Your task to perform on an android device: Go to Wikipedia Image 0: 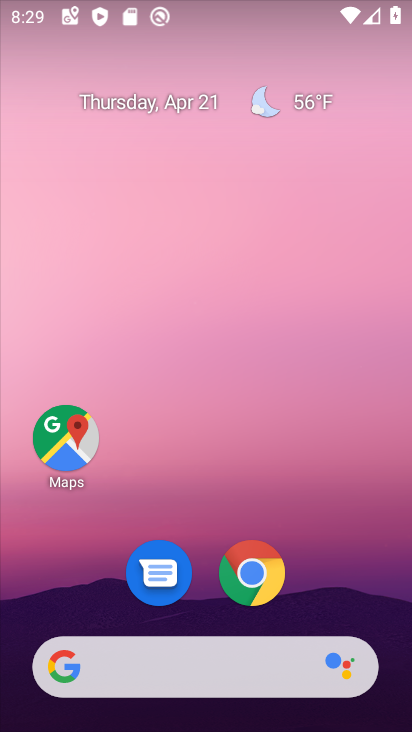
Step 0: click (261, 552)
Your task to perform on an android device: Go to Wikipedia Image 1: 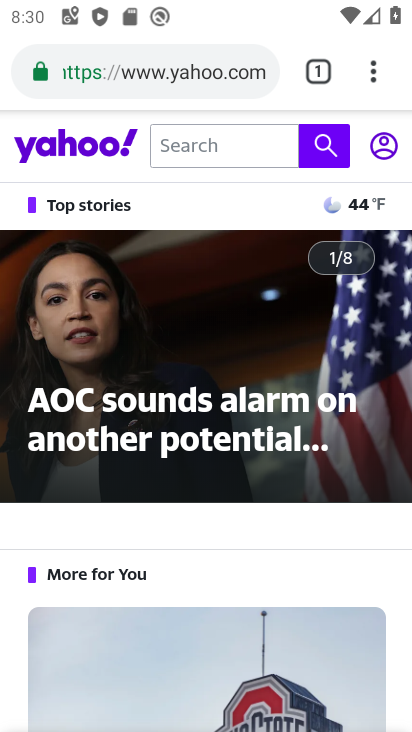
Step 1: click (327, 70)
Your task to perform on an android device: Go to Wikipedia Image 2: 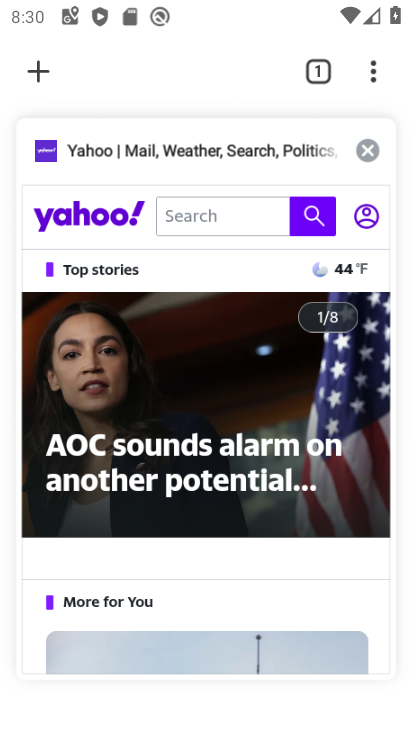
Step 2: click (367, 150)
Your task to perform on an android device: Go to Wikipedia Image 3: 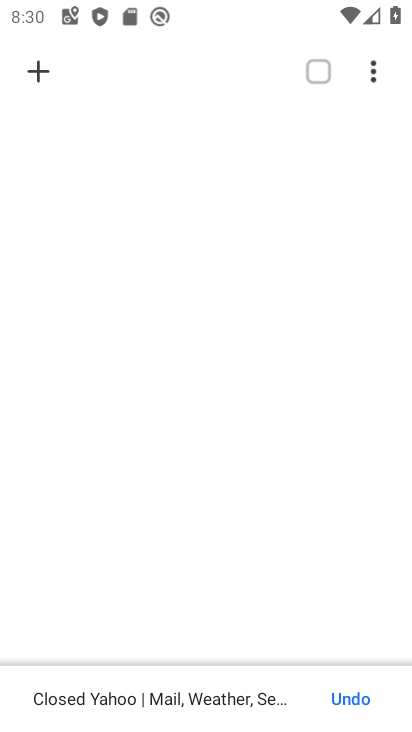
Step 3: click (38, 70)
Your task to perform on an android device: Go to Wikipedia Image 4: 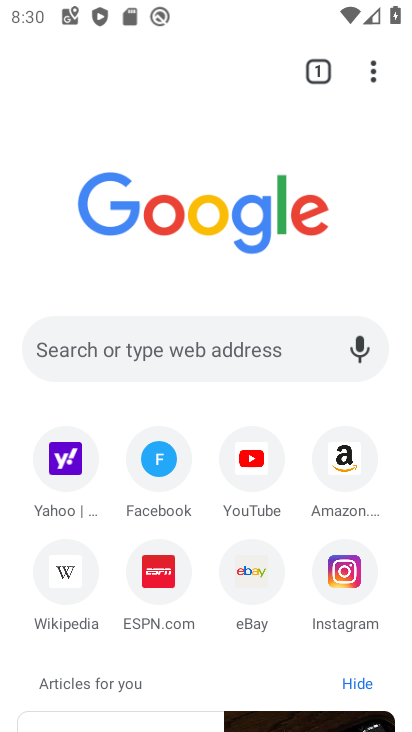
Step 4: click (70, 585)
Your task to perform on an android device: Go to Wikipedia Image 5: 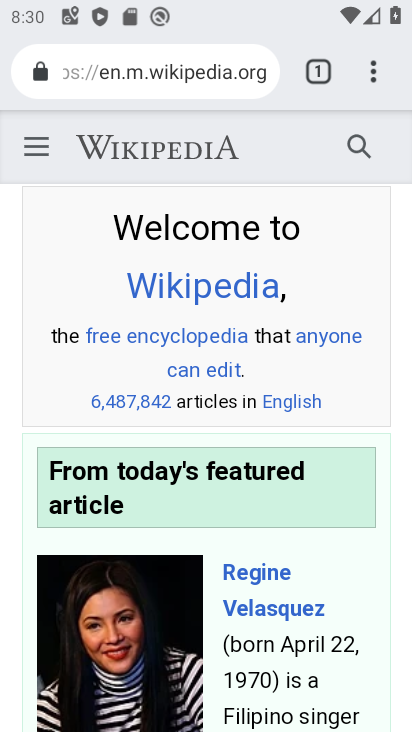
Step 5: task complete